Your task to perform on an android device: allow cookies in the chrome app Image 0: 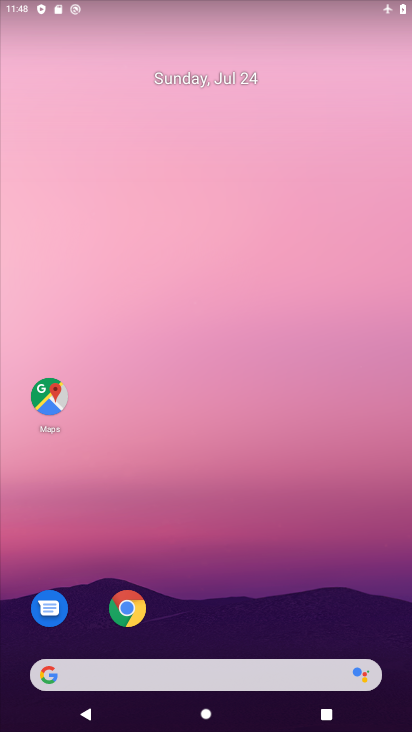
Step 0: click (135, 598)
Your task to perform on an android device: allow cookies in the chrome app Image 1: 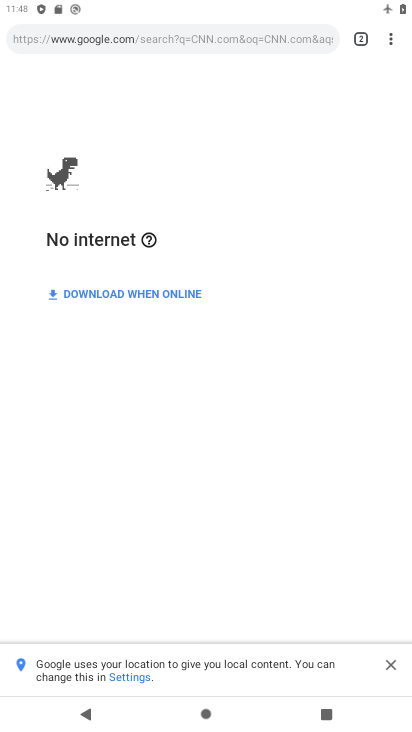
Step 1: click (391, 36)
Your task to perform on an android device: allow cookies in the chrome app Image 2: 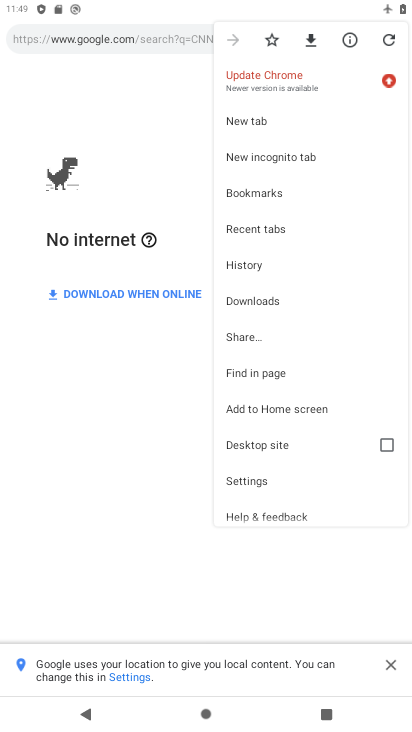
Step 2: click (288, 487)
Your task to perform on an android device: allow cookies in the chrome app Image 3: 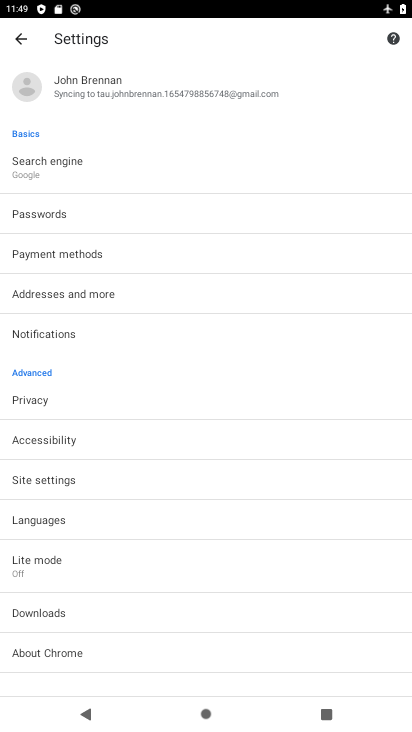
Step 3: click (83, 483)
Your task to perform on an android device: allow cookies in the chrome app Image 4: 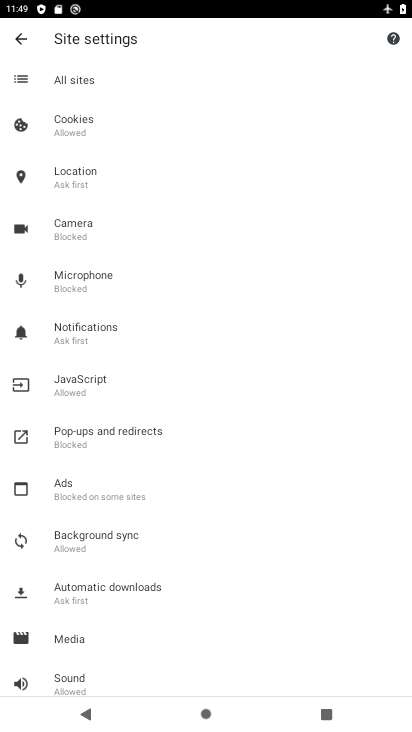
Step 4: click (110, 131)
Your task to perform on an android device: allow cookies in the chrome app Image 5: 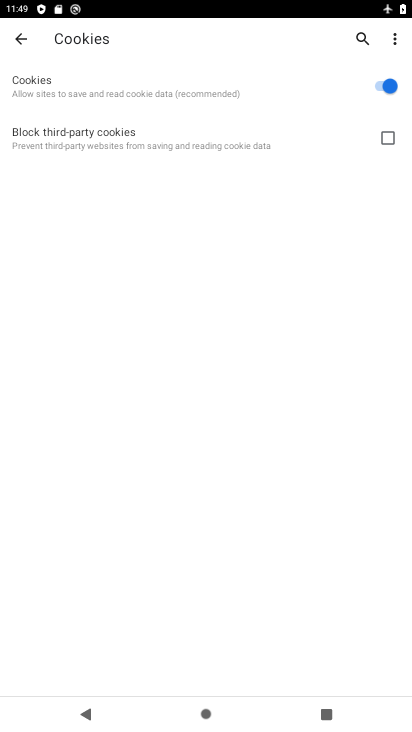
Step 5: task complete